Your task to perform on an android device: change keyboard looks Image 0: 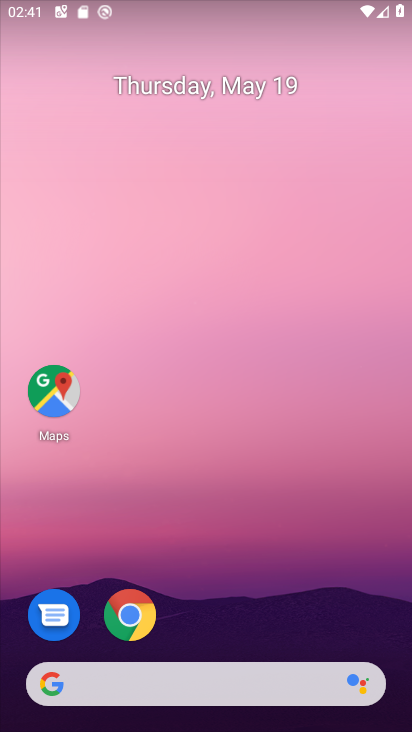
Step 0: drag from (225, 565) to (202, 36)
Your task to perform on an android device: change keyboard looks Image 1: 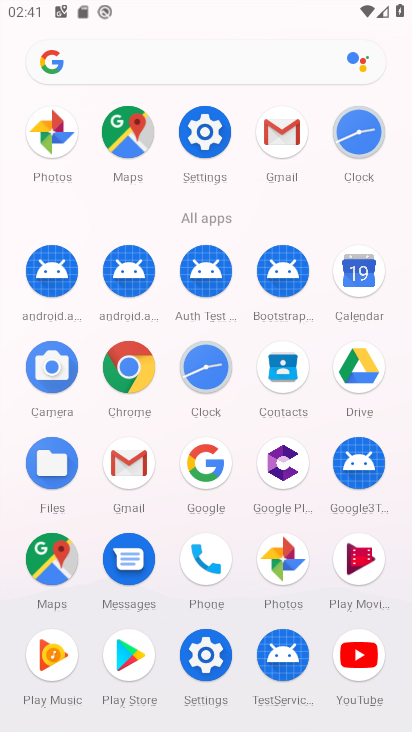
Step 1: drag from (0, 522) to (3, 225)
Your task to perform on an android device: change keyboard looks Image 2: 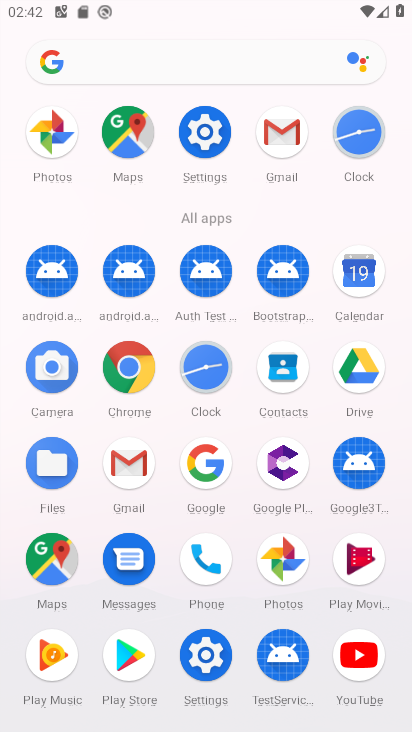
Step 2: click (200, 651)
Your task to perform on an android device: change keyboard looks Image 3: 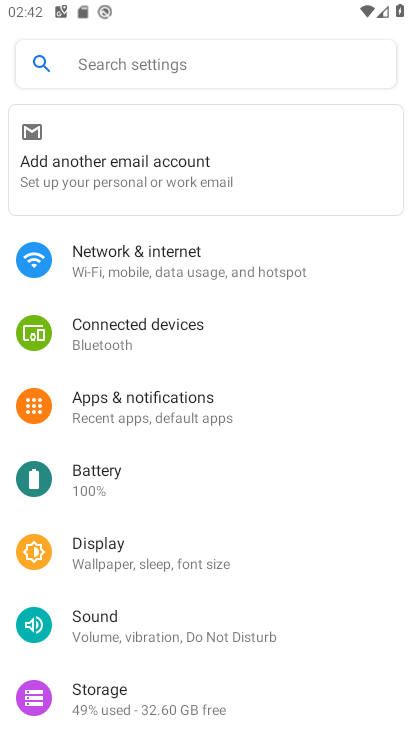
Step 3: drag from (259, 609) to (256, 212)
Your task to perform on an android device: change keyboard looks Image 4: 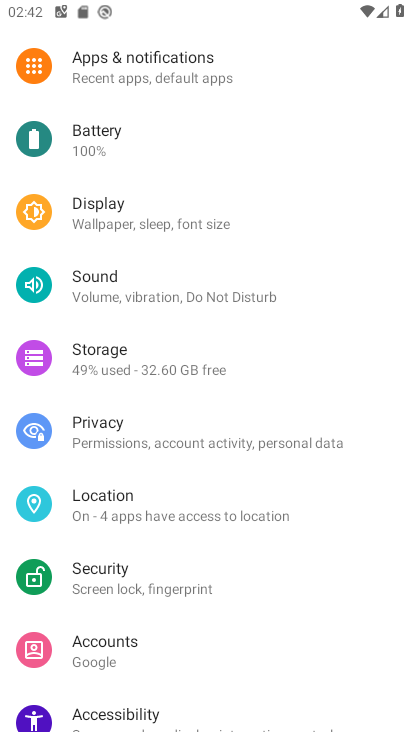
Step 4: drag from (243, 599) to (243, 63)
Your task to perform on an android device: change keyboard looks Image 5: 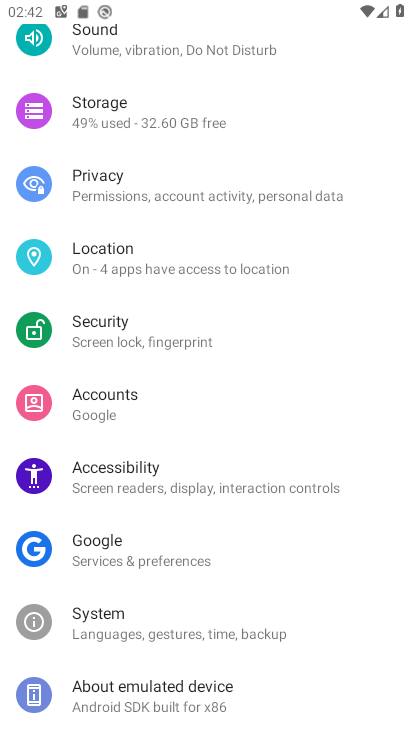
Step 5: drag from (196, 556) to (221, 85)
Your task to perform on an android device: change keyboard looks Image 6: 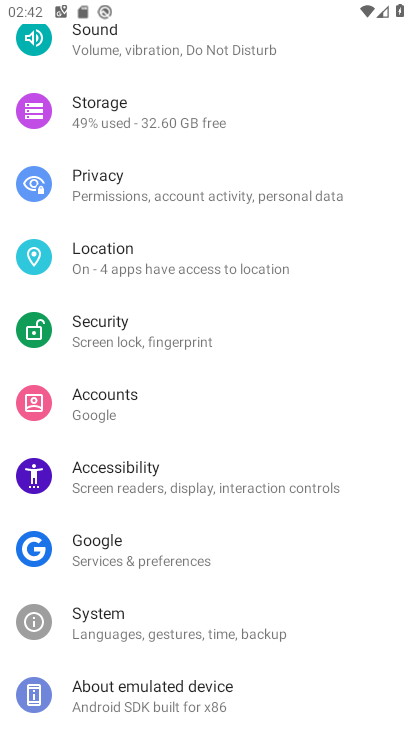
Step 6: click (157, 598)
Your task to perform on an android device: change keyboard looks Image 7: 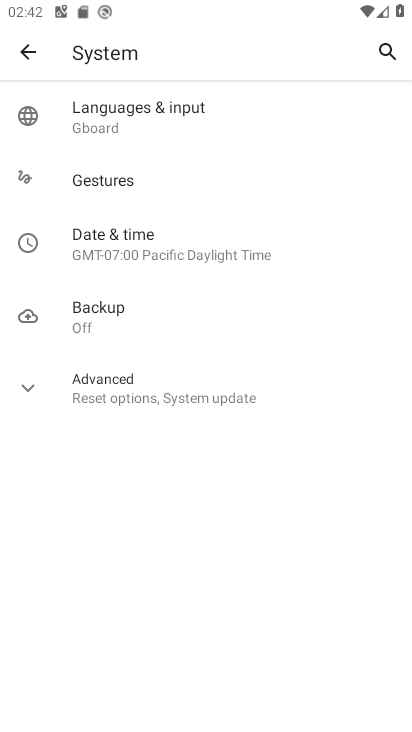
Step 7: click (151, 109)
Your task to perform on an android device: change keyboard looks Image 8: 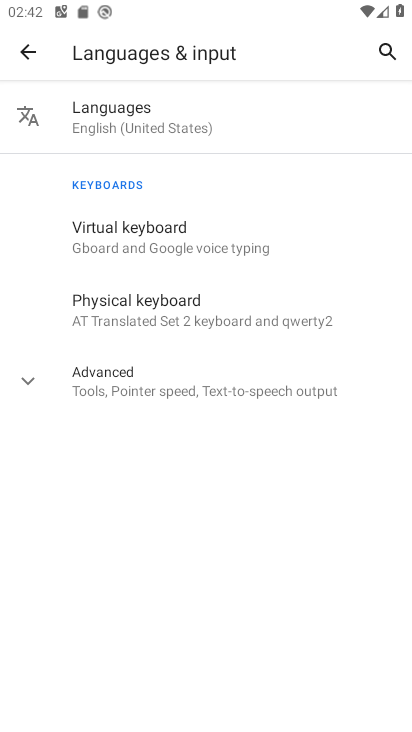
Step 8: click (169, 236)
Your task to perform on an android device: change keyboard looks Image 9: 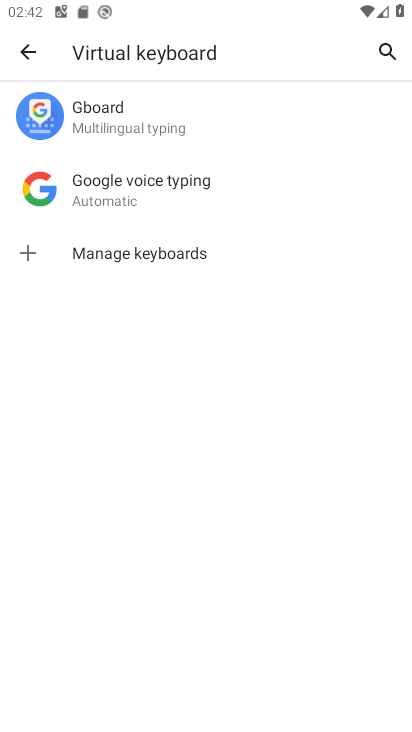
Step 9: click (166, 118)
Your task to perform on an android device: change keyboard looks Image 10: 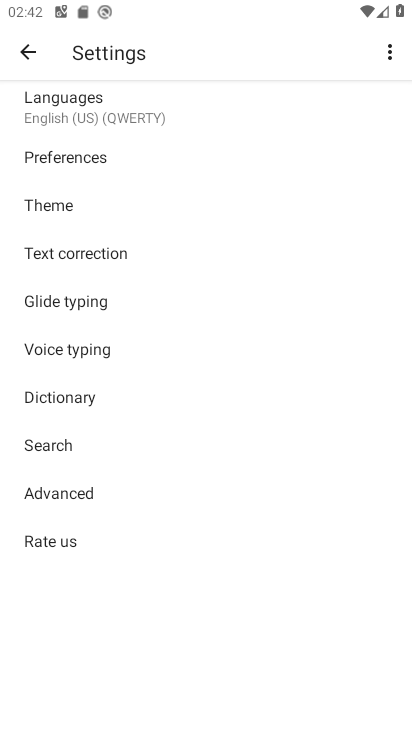
Step 10: click (73, 204)
Your task to perform on an android device: change keyboard looks Image 11: 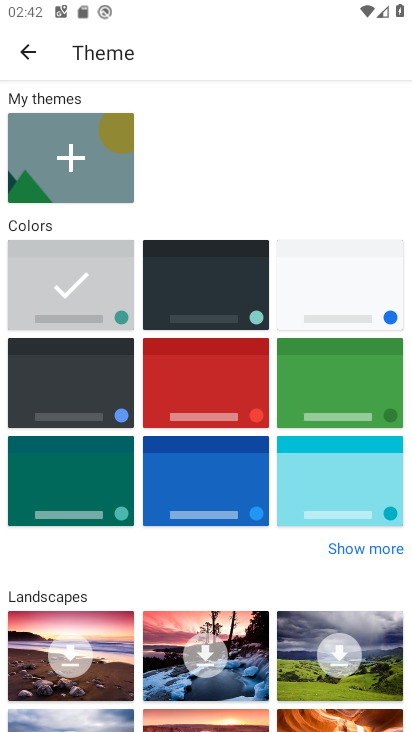
Step 11: click (213, 285)
Your task to perform on an android device: change keyboard looks Image 12: 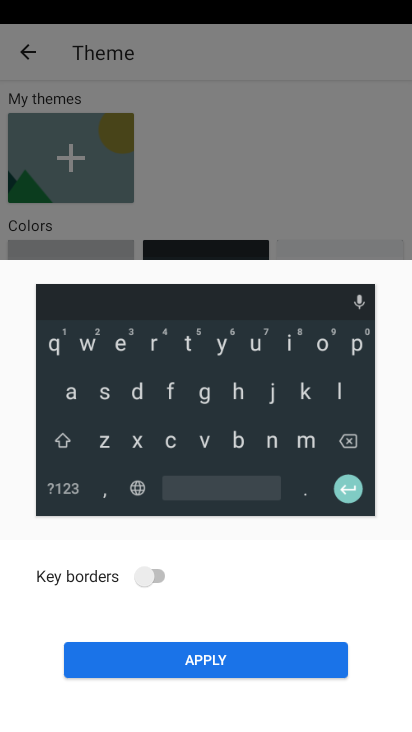
Step 12: click (239, 661)
Your task to perform on an android device: change keyboard looks Image 13: 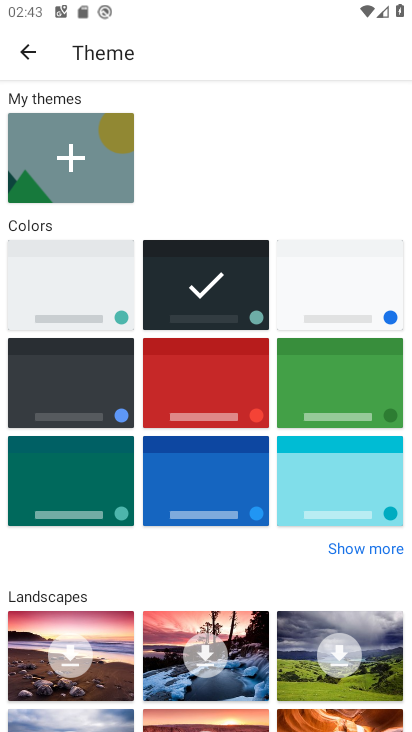
Step 13: task complete